Your task to perform on an android device: Go to accessibility settings Image 0: 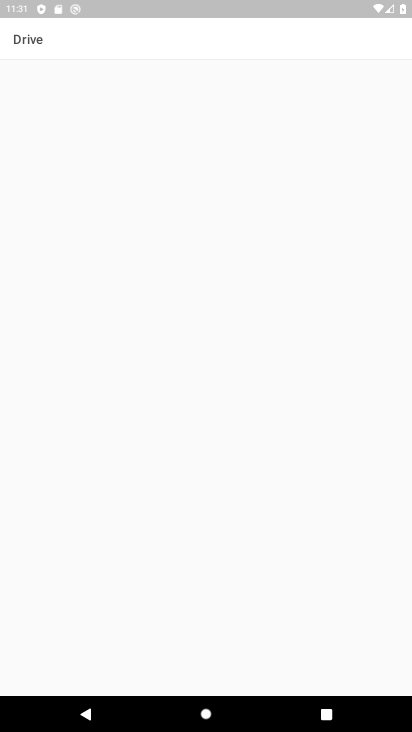
Step 0: press back button
Your task to perform on an android device: Go to accessibility settings Image 1: 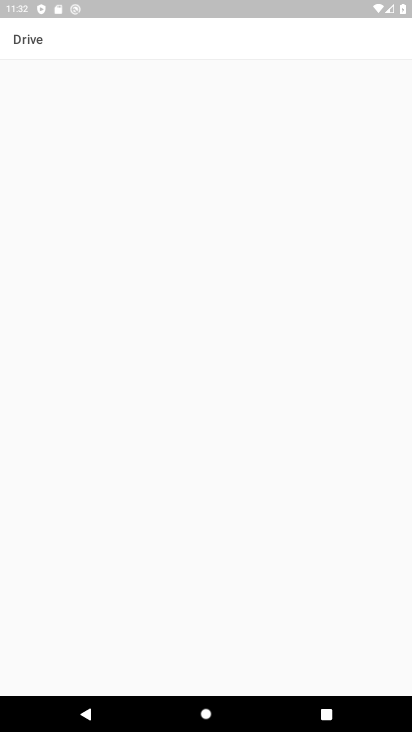
Step 1: press back button
Your task to perform on an android device: Go to accessibility settings Image 2: 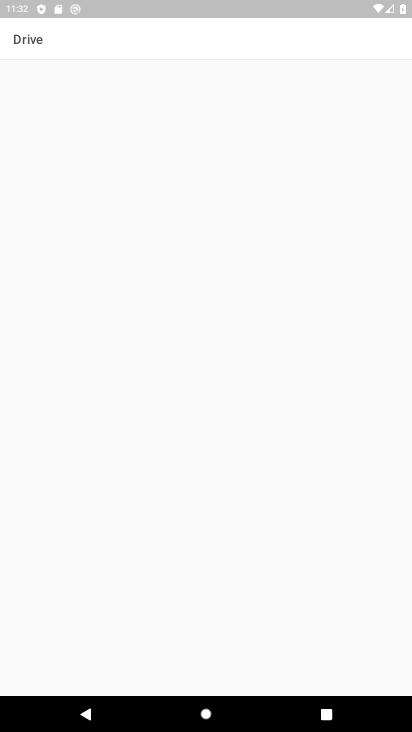
Step 2: press back button
Your task to perform on an android device: Go to accessibility settings Image 3: 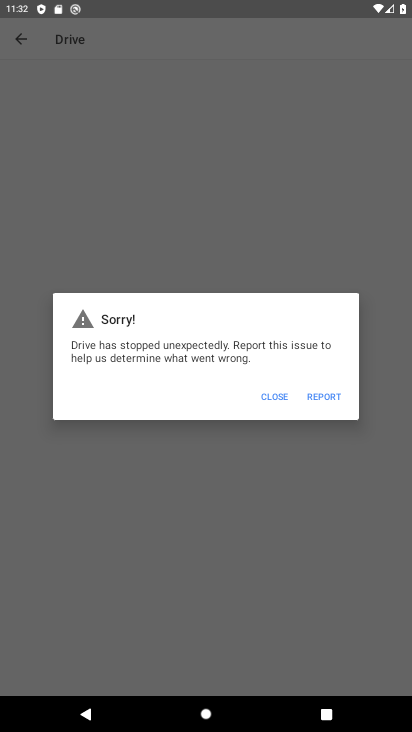
Step 3: press home button
Your task to perform on an android device: Go to accessibility settings Image 4: 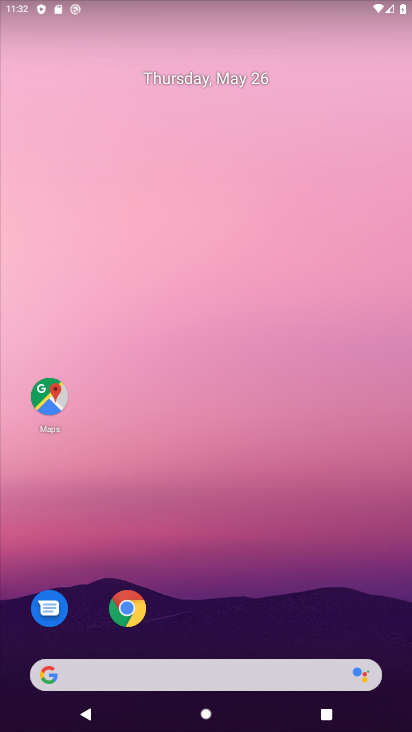
Step 4: drag from (211, 534) to (246, 15)
Your task to perform on an android device: Go to accessibility settings Image 5: 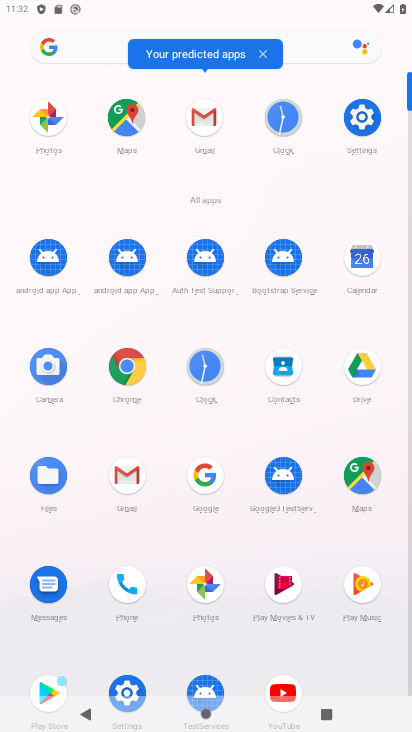
Step 5: click (359, 115)
Your task to perform on an android device: Go to accessibility settings Image 6: 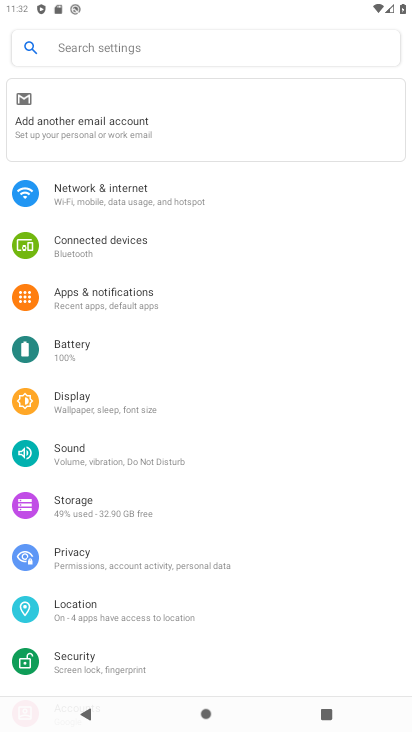
Step 6: click (230, 153)
Your task to perform on an android device: Go to accessibility settings Image 7: 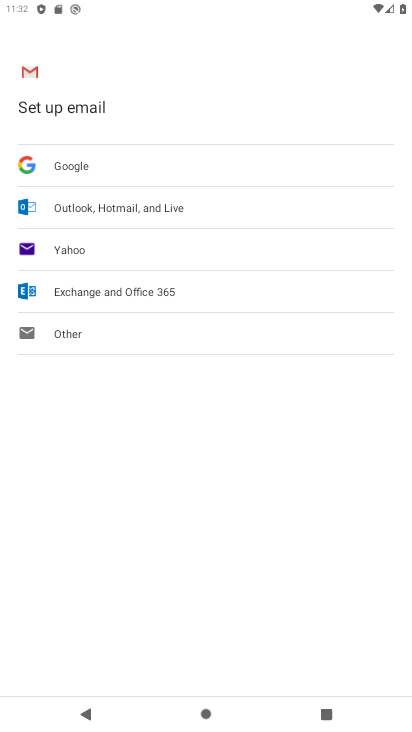
Step 7: press back button
Your task to perform on an android device: Go to accessibility settings Image 8: 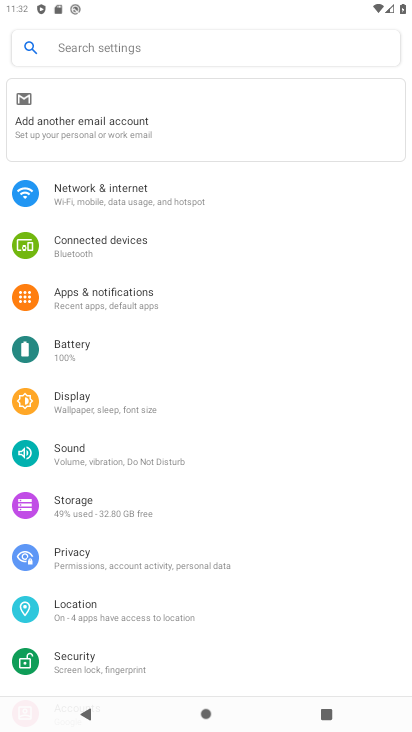
Step 8: drag from (207, 595) to (194, 232)
Your task to perform on an android device: Go to accessibility settings Image 9: 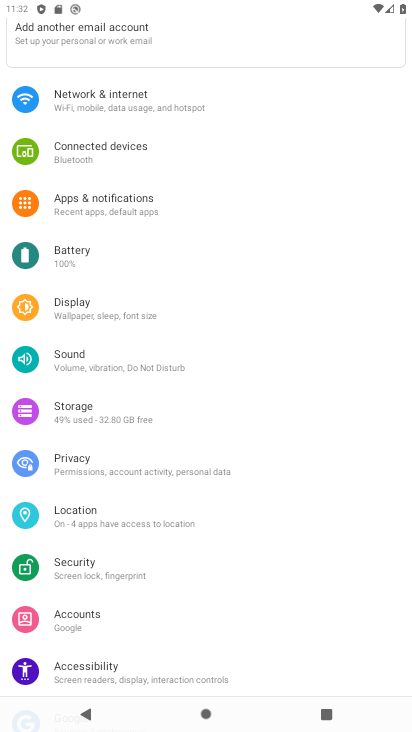
Step 9: drag from (151, 602) to (186, 206)
Your task to perform on an android device: Go to accessibility settings Image 10: 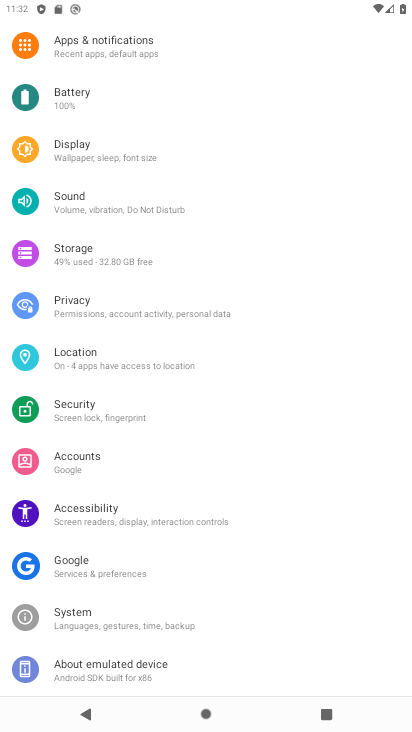
Step 10: click (95, 523)
Your task to perform on an android device: Go to accessibility settings Image 11: 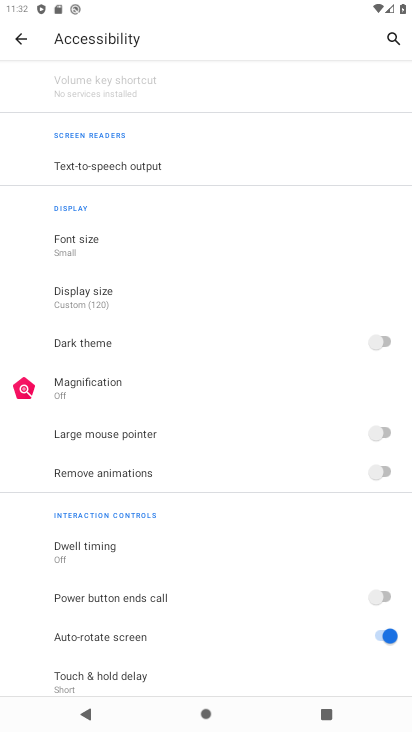
Step 11: task complete